Your task to perform on an android device: open device folders in google photos Image 0: 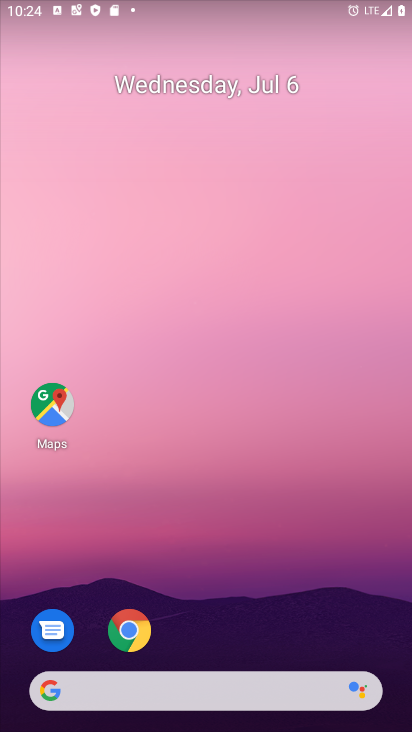
Step 0: drag from (337, 618) to (361, 99)
Your task to perform on an android device: open device folders in google photos Image 1: 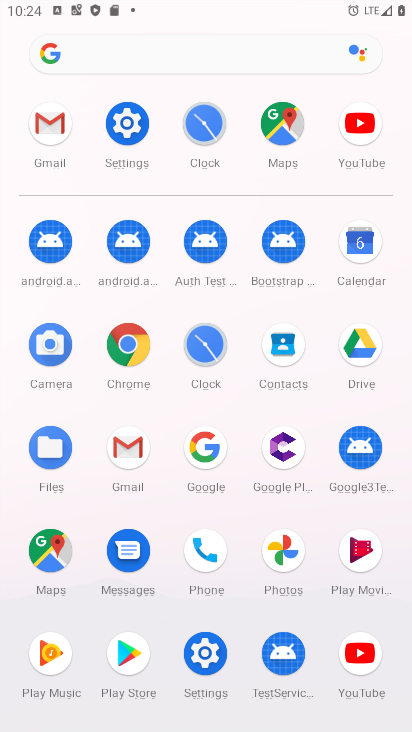
Step 1: click (283, 549)
Your task to perform on an android device: open device folders in google photos Image 2: 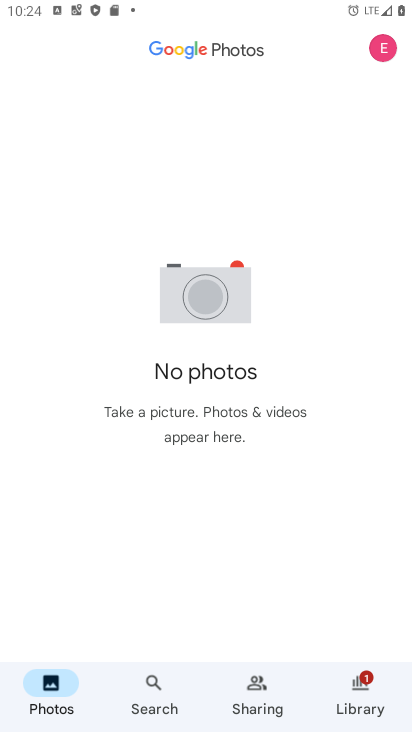
Step 2: click (388, 50)
Your task to perform on an android device: open device folders in google photos Image 3: 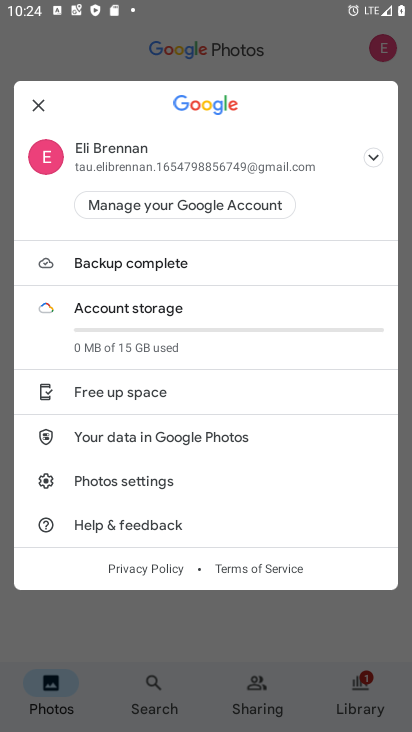
Step 3: task complete